Your task to perform on an android device: toggle notification dots Image 0: 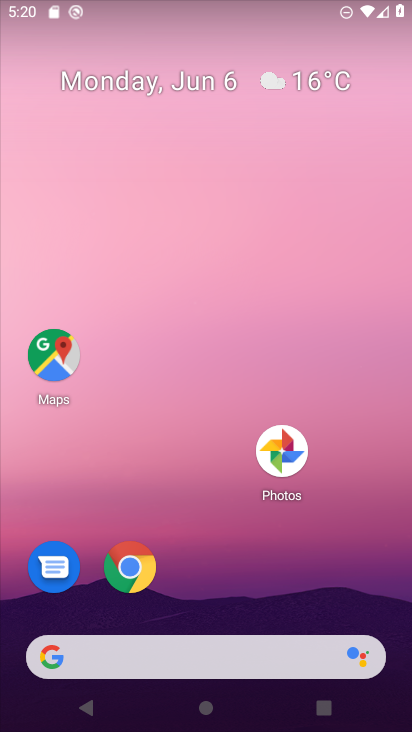
Step 0: drag from (291, 698) to (214, 174)
Your task to perform on an android device: toggle notification dots Image 1: 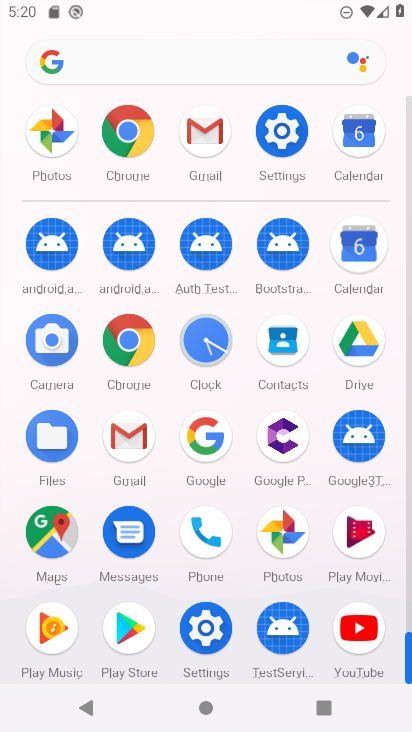
Step 1: click (282, 134)
Your task to perform on an android device: toggle notification dots Image 2: 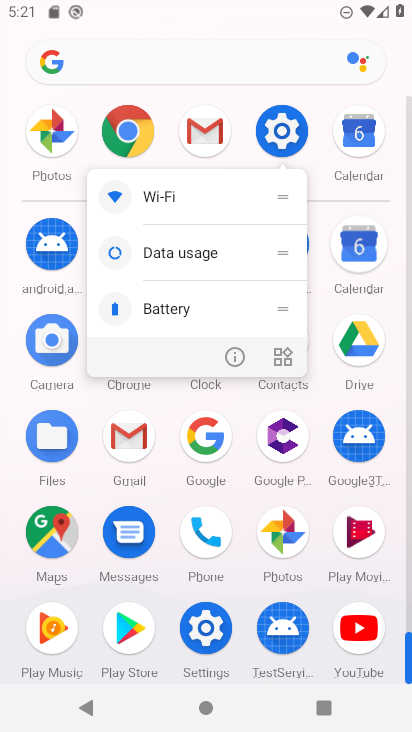
Step 2: click (253, 146)
Your task to perform on an android device: toggle notification dots Image 3: 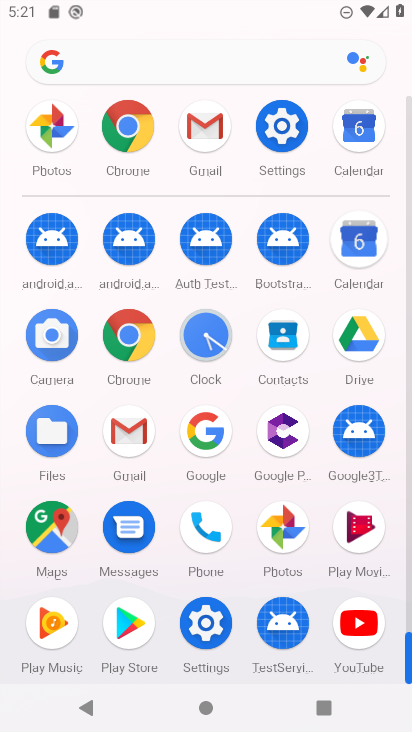
Step 3: click (282, 134)
Your task to perform on an android device: toggle notification dots Image 4: 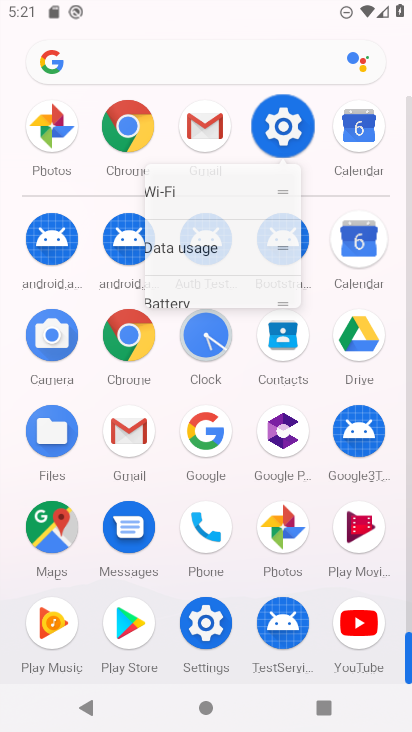
Step 4: click (283, 140)
Your task to perform on an android device: toggle notification dots Image 5: 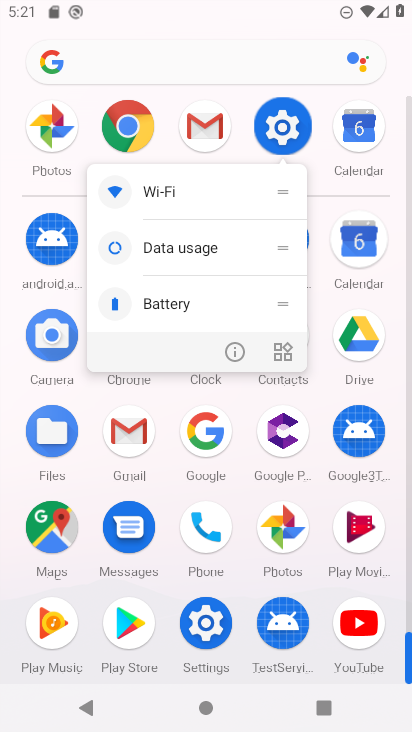
Step 5: click (284, 144)
Your task to perform on an android device: toggle notification dots Image 6: 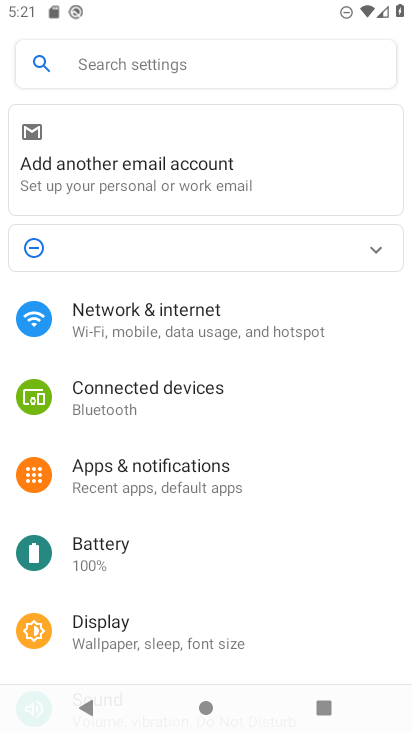
Step 6: click (167, 474)
Your task to perform on an android device: toggle notification dots Image 7: 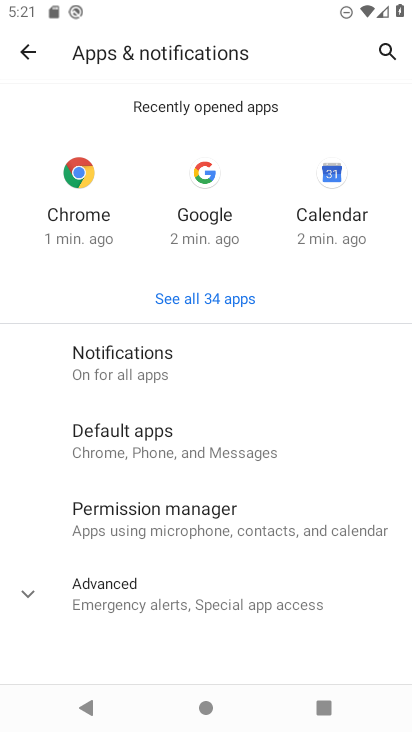
Step 7: click (116, 357)
Your task to perform on an android device: toggle notification dots Image 8: 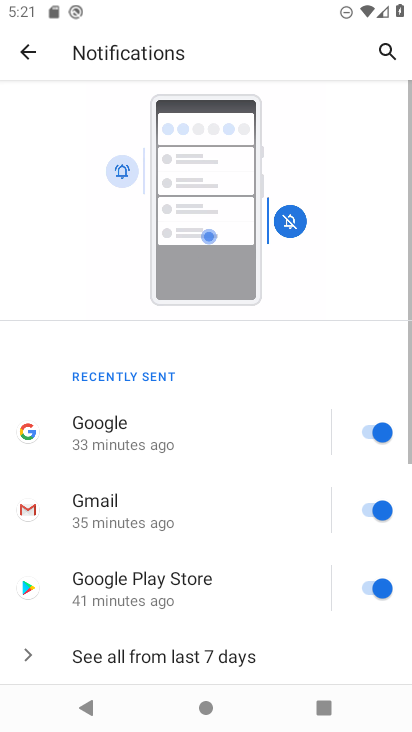
Step 8: drag from (262, 560) to (207, 200)
Your task to perform on an android device: toggle notification dots Image 9: 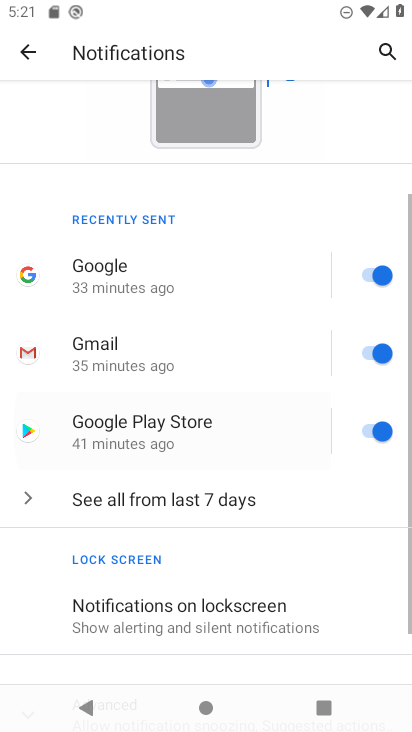
Step 9: drag from (207, 484) to (156, 122)
Your task to perform on an android device: toggle notification dots Image 10: 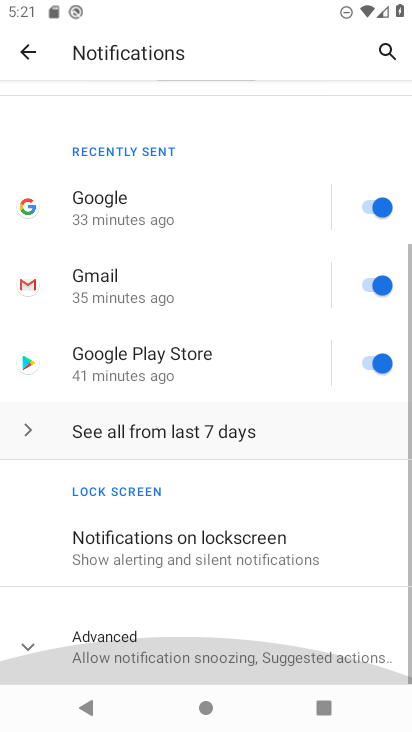
Step 10: drag from (173, 517) to (173, 228)
Your task to perform on an android device: toggle notification dots Image 11: 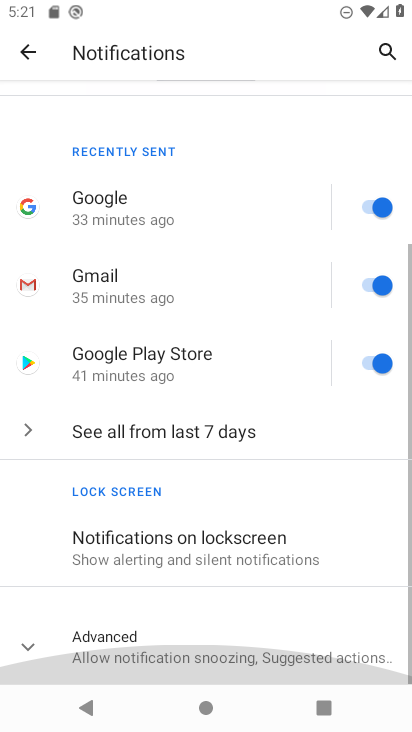
Step 11: drag from (245, 484) to (224, 238)
Your task to perform on an android device: toggle notification dots Image 12: 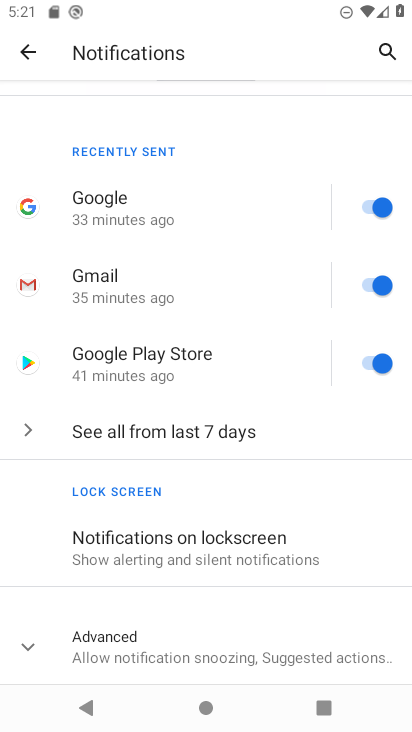
Step 12: click (89, 648)
Your task to perform on an android device: toggle notification dots Image 13: 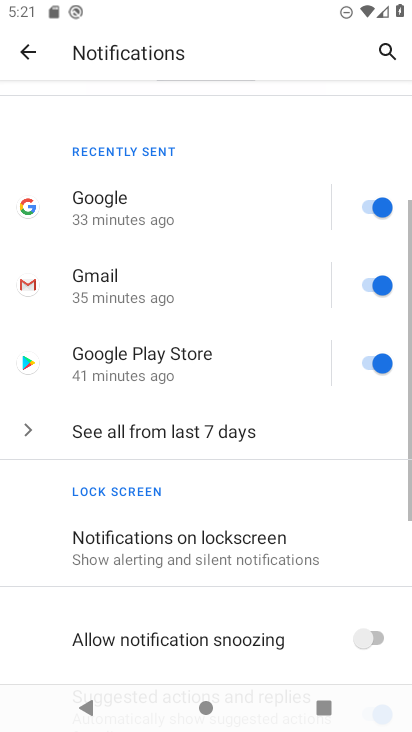
Step 13: drag from (247, 568) to (210, 249)
Your task to perform on an android device: toggle notification dots Image 14: 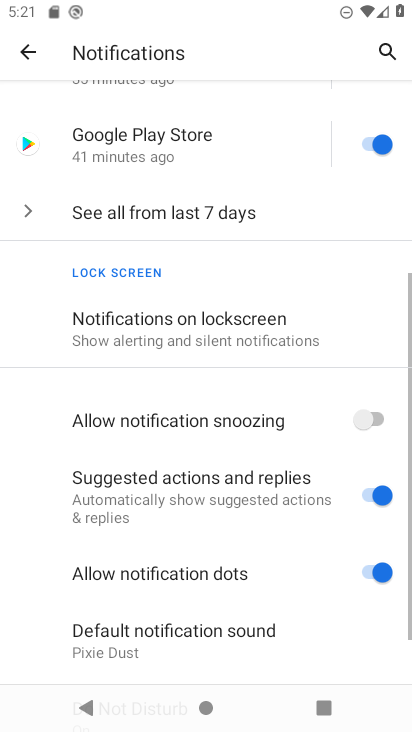
Step 14: drag from (233, 503) to (234, 225)
Your task to perform on an android device: toggle notification dots Image 15: 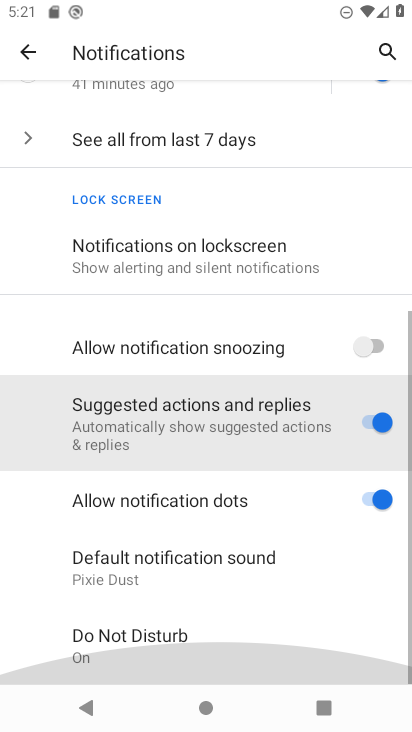
Step 15: drag from (257, 484) to (223, 208)
Your task to perform on an android device: toggle notification dots Image 16: 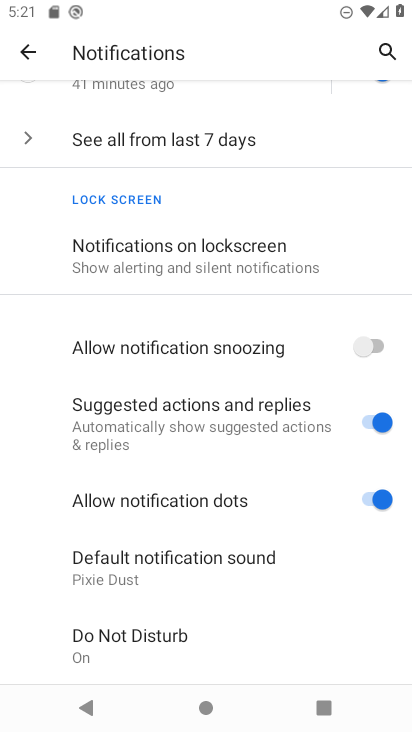
Step 16: click (382, 505)
Your task to perform on an android device: toggle notification dots Image 17: 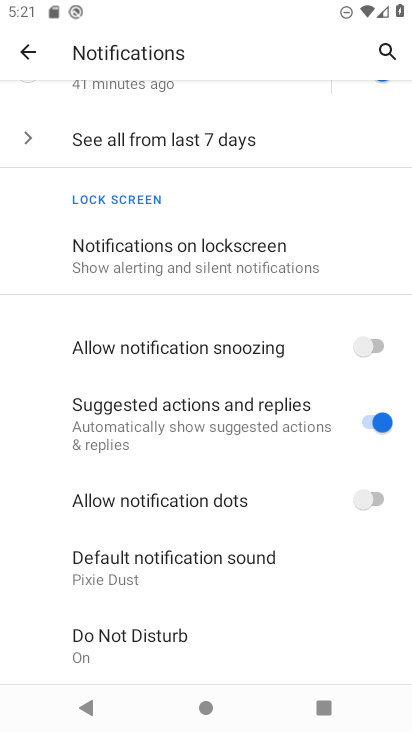
Step 17: task complete